Your task to perform on an android device: Open Wikipedia Image 0: 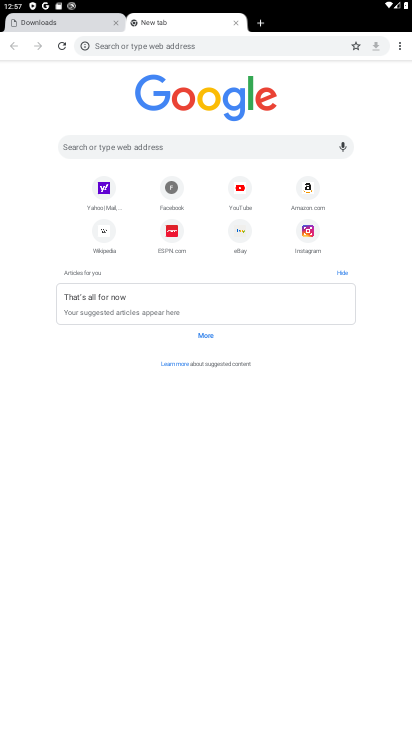
Step 0: click (107, 232)
Your task to perform on an android device: Open Wikipedia Image 1: 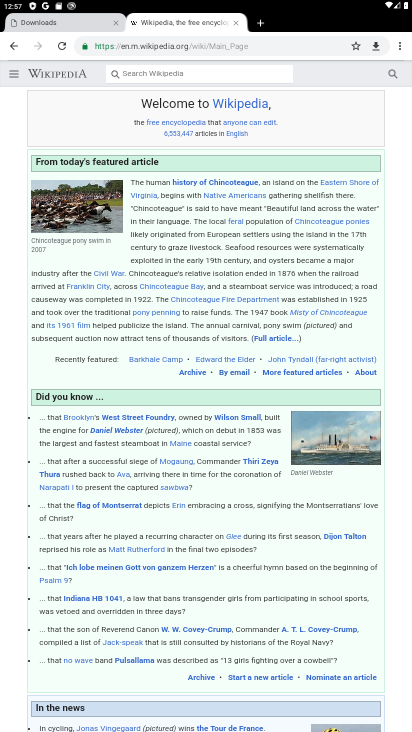
Step 1: task complete